Your task to perform on an android device: choose inbox layout in the gmail app Image 0: 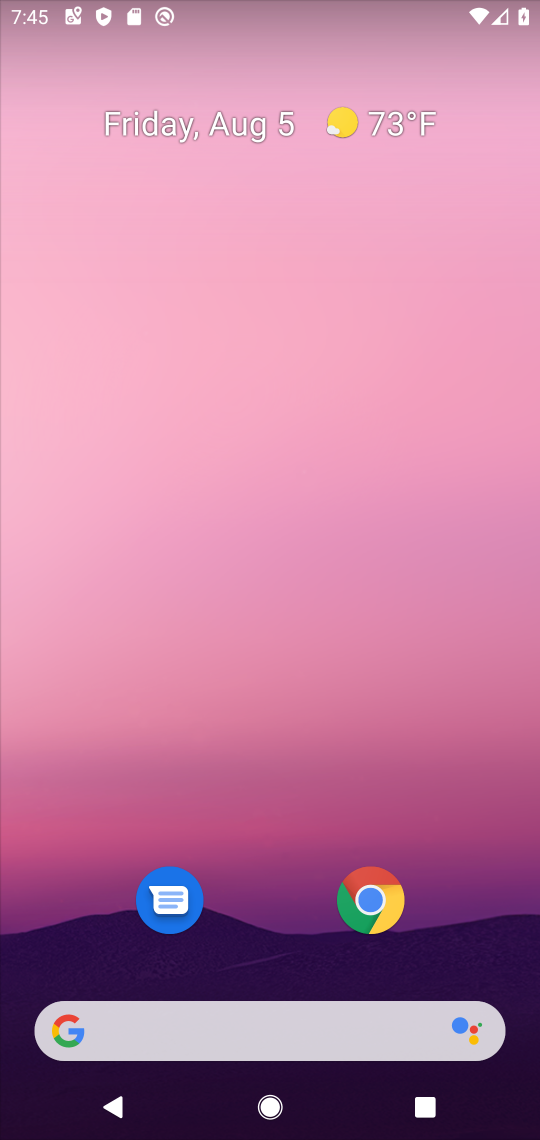
Step 0: drag from (268, 984) to (272, 289)
Your task to perform on an android device: choose inbox layout in the gmail app Image 1: 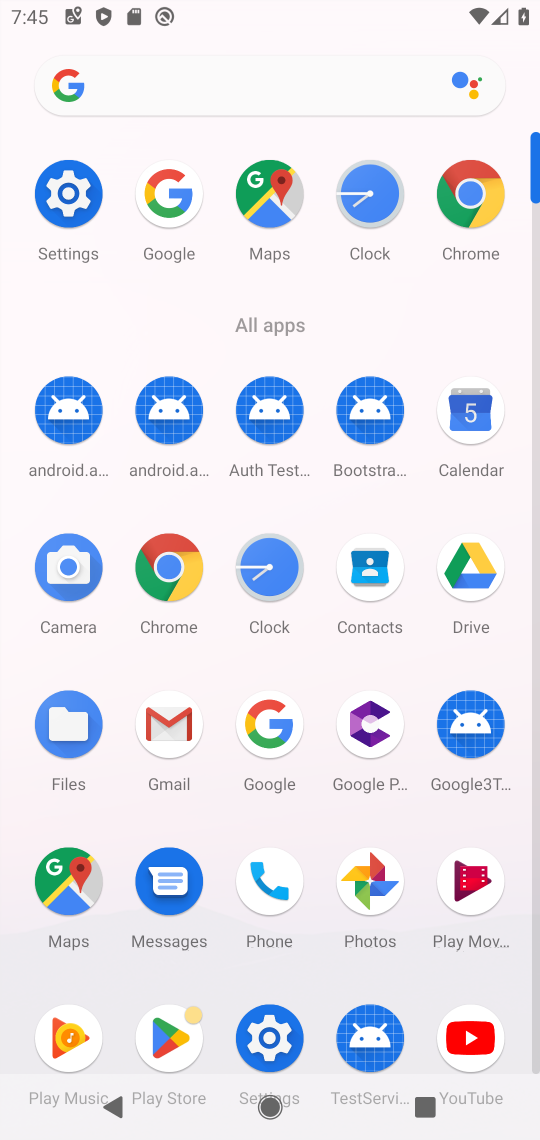
Step 1: click (167, 726)
Your task to perform on an android device: choose inbox layout in the gmail app Image 2: 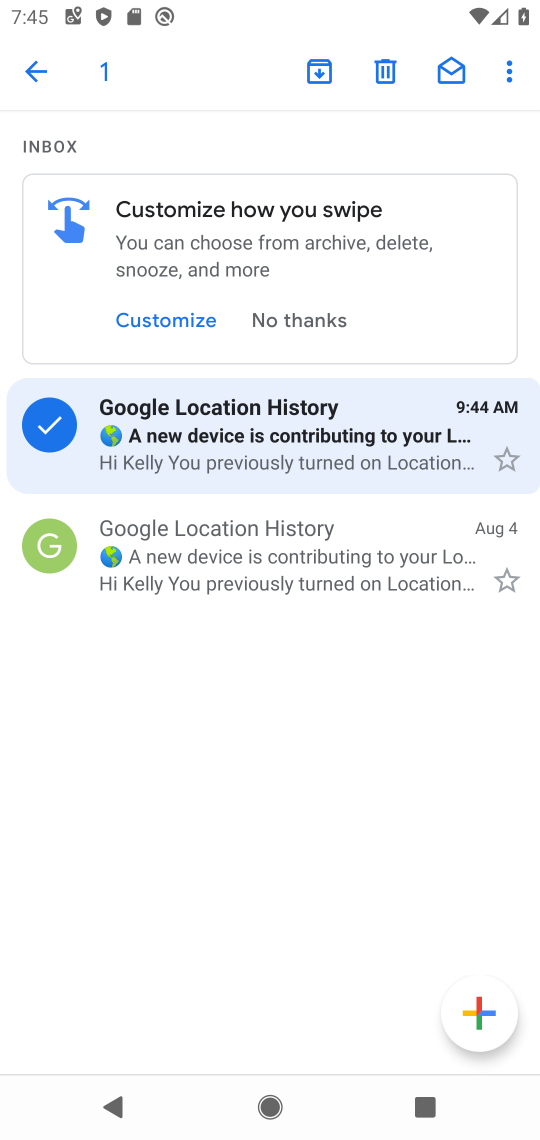
Step 2: click (43, 62)
Your task to perform on an android device: choose inbox layout in the gmail app Image 3: 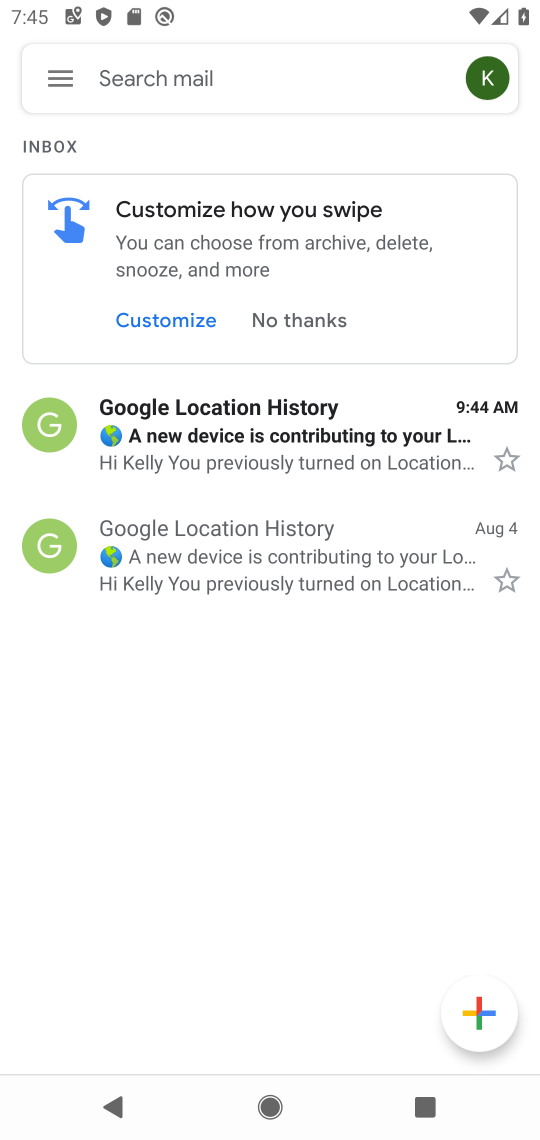
Step 3: click (51, 72)
Your task to perform on an android device: choose inbox layout in the gmail app Image 4: 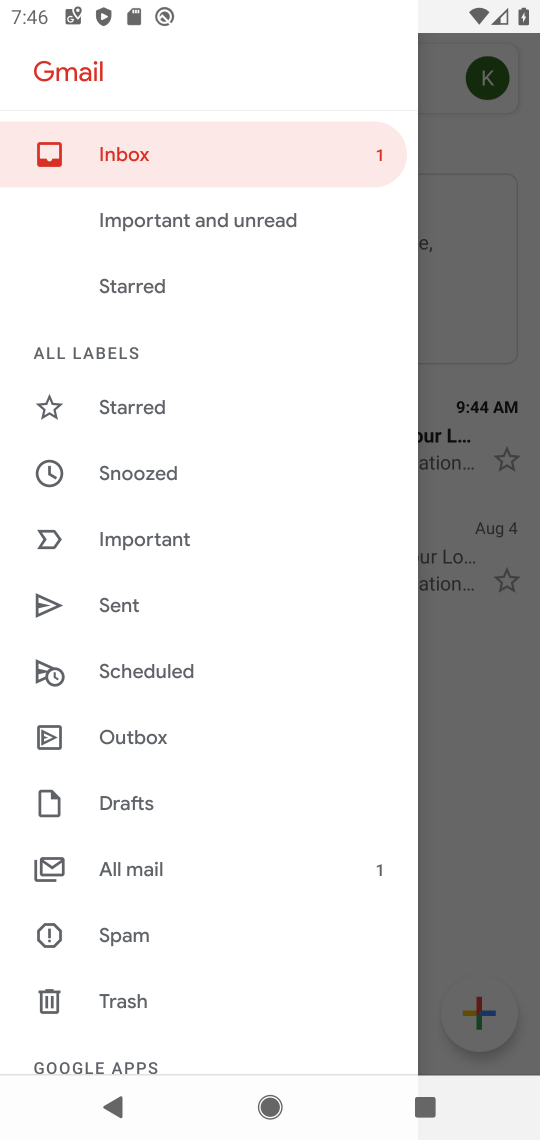
Step 4: drag from (147, 957) to (291, 331)
Your task to perform on an android device: choose inbox layout in the gmail app Image 5: 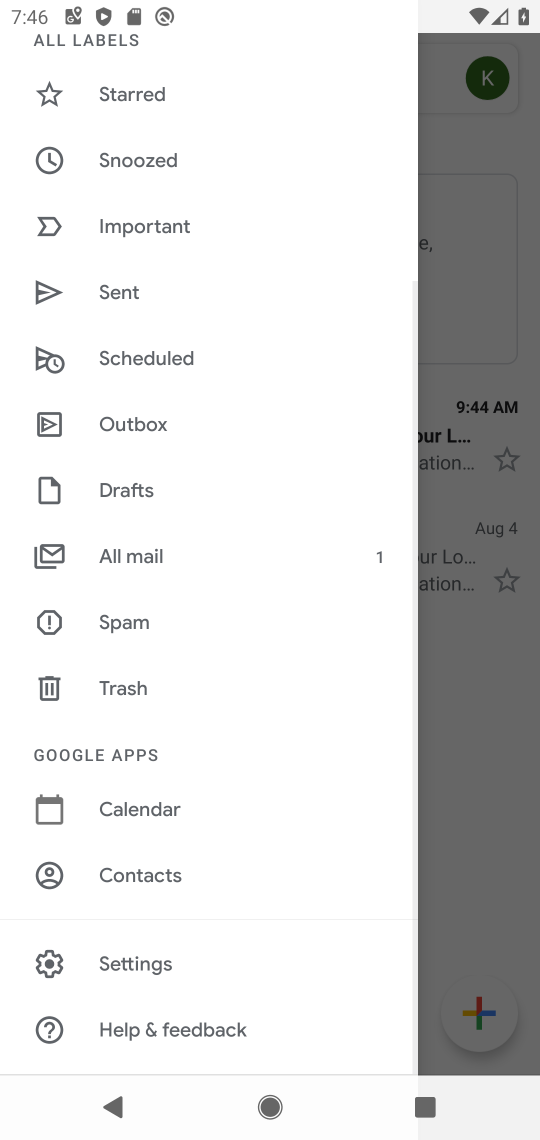
Step 5: click (121, 949)
Your task to perform on an android device: choose inbox layout in the gmail app Image 6: 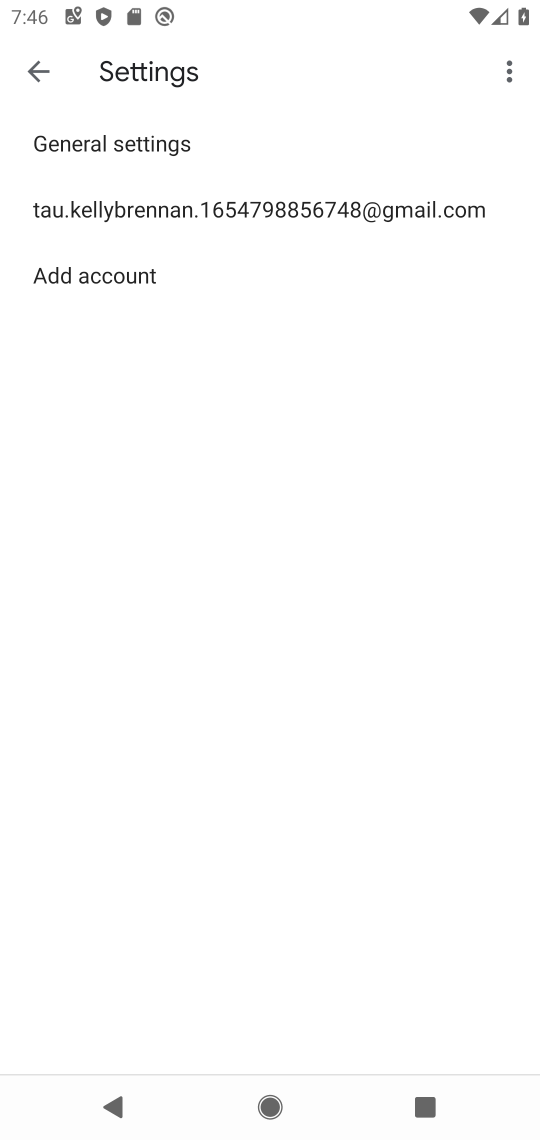
Step 6: click (102, 199)
Your task to perform on an android device: choose inbox layout in the gmail app Image 7: 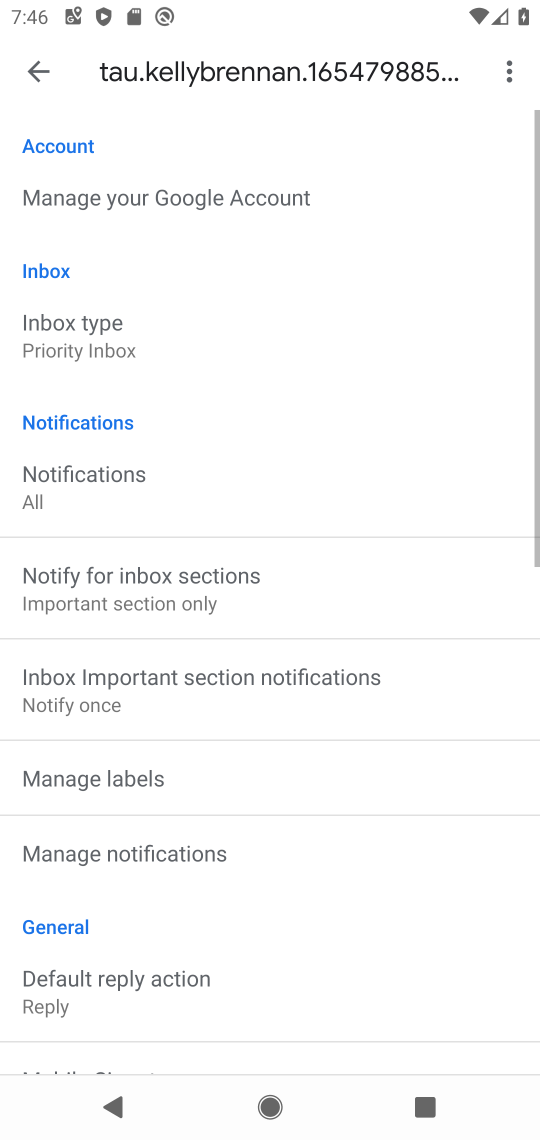
Step 7: click (86, 341)
Your task to perform on an android device: choose inbox layout in the gmail app Image 8: 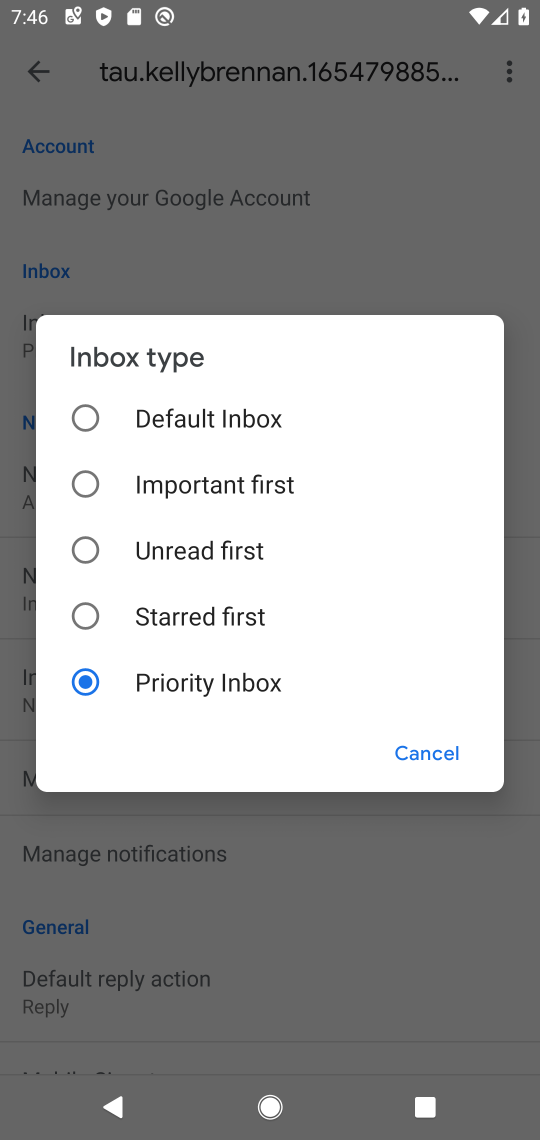
Step 8: click (150, 468)
Your task to perform on an android device: choose inbox layout in the gmail app Image 9: 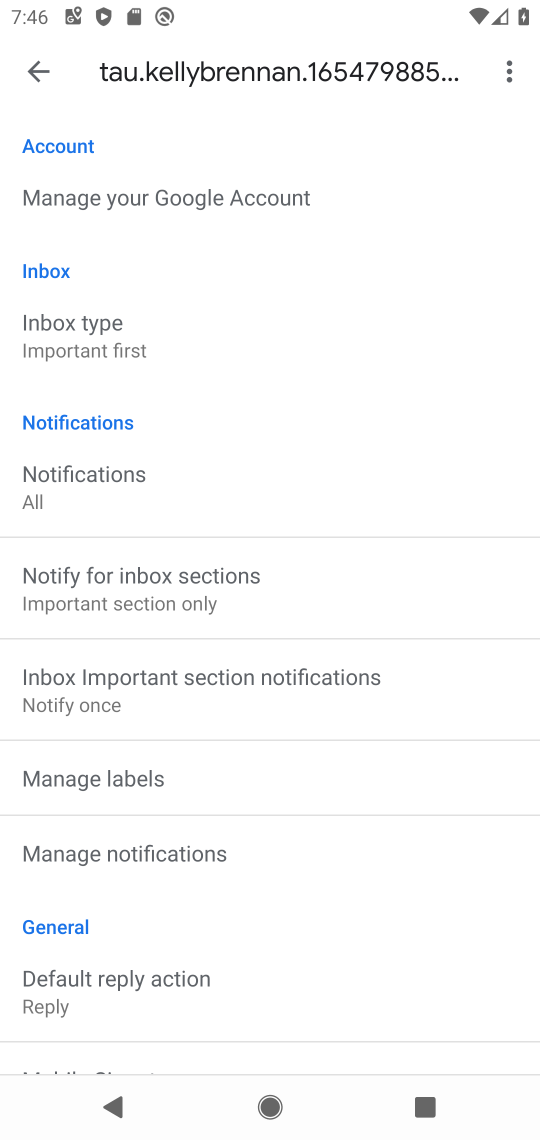
Step 9: task complete